Your task to perform on an android device: move an email to a new category in the gmail app Image 0: 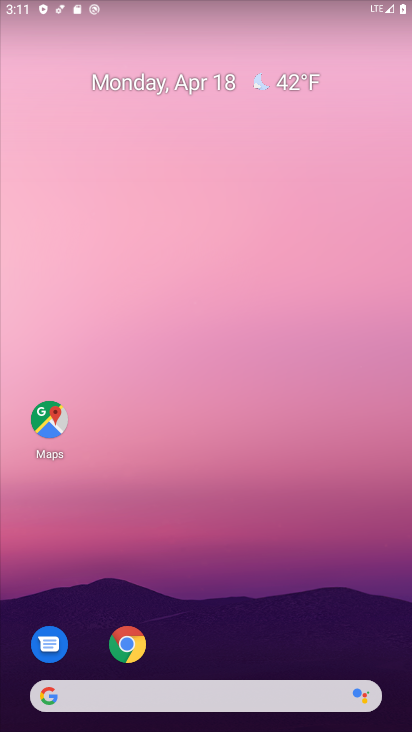
Step 0: drag from (190, 676) to (237, 285)
Your task to perform on an android device: move an email to a new category in the gmail app Image 1: 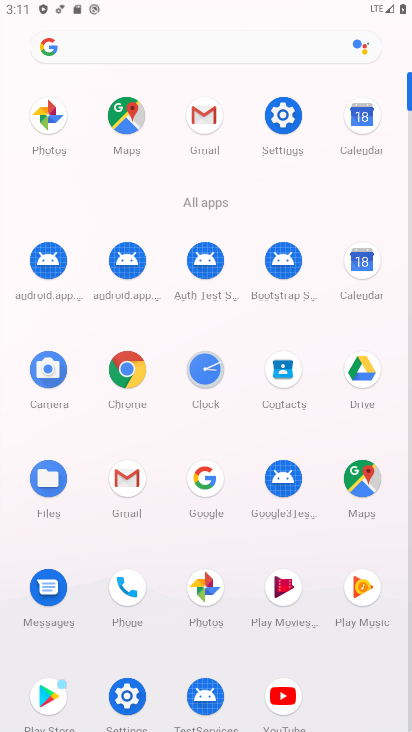
Step 1: click (197, 123)
Your task to perform on an android device: move an email to a new category in the gmail app Image 2: 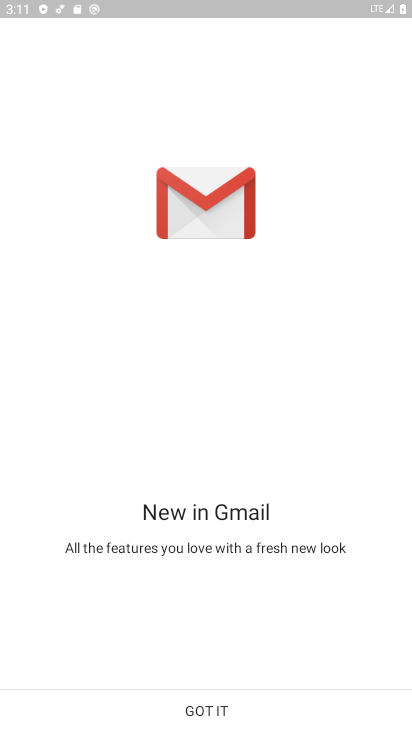
Step 2: click (213, 712)
Your task to perform on an android device: move an email to a new category in the gmail app Image 3: 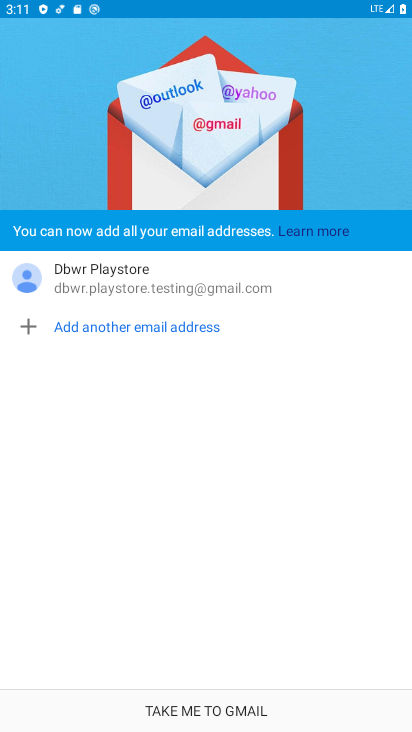
Step 3: click (175, 708)
Your task to perform on an android device: move an email to a new category in the gmail app Image 4: 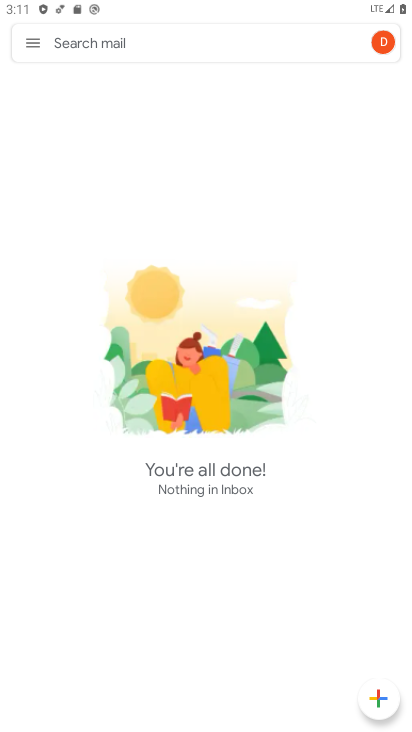
Step 4: click (29, 40)
Your task to perform on an android device: move an email to a new category in the gmail app Image 5: 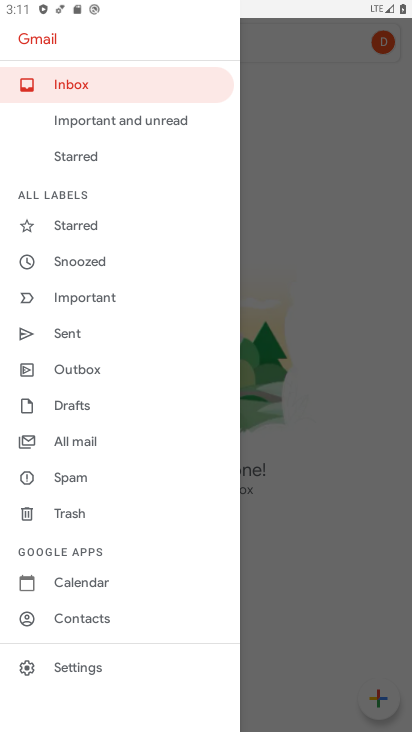
Step 5: click (86, 441)
Your task to perform on an android device: move an email to a new category in the gmail app Image 6: 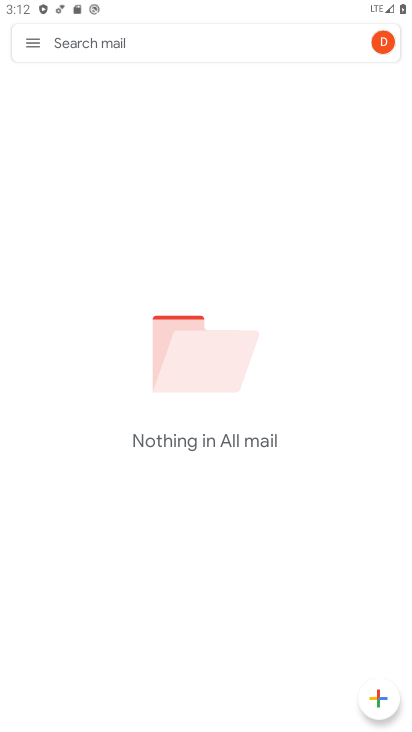
Step 6: task complete